Your task to perform on an android device: set an alarm Image 0: 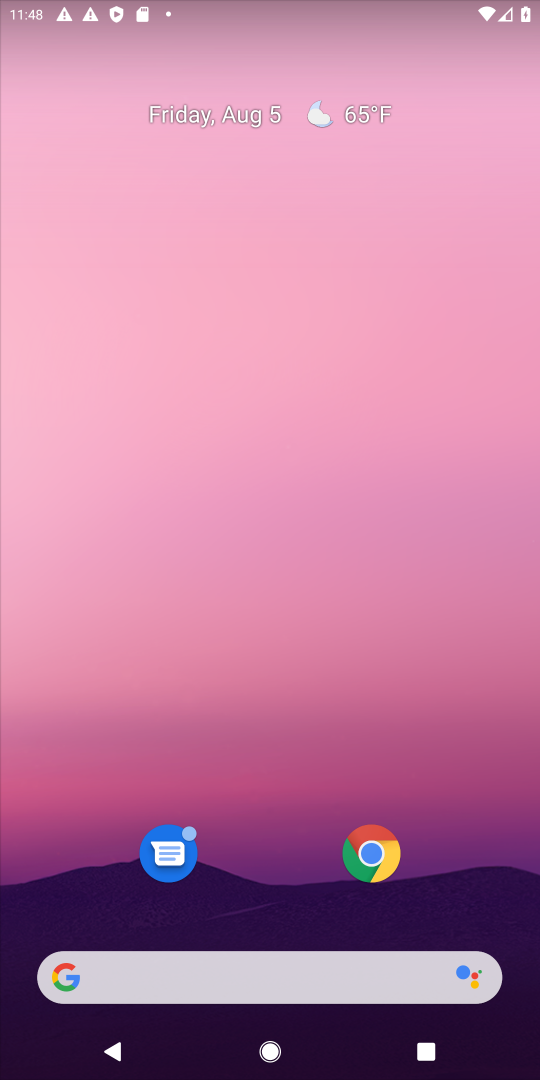
Step 0: drag from (267, 847) to (183, 185)
Your task to perform on an android device: set an alarm Image 1: 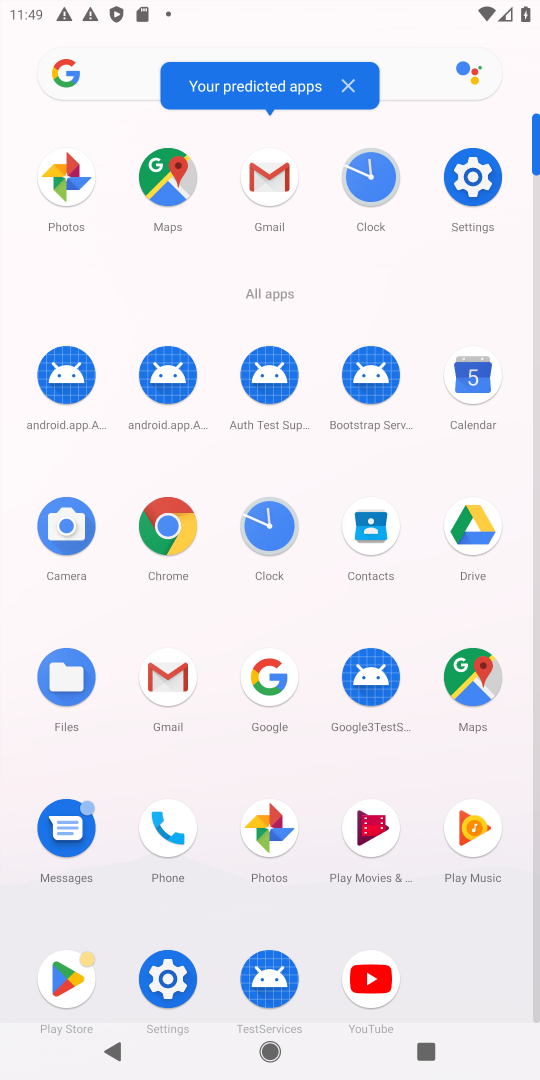
Step 1: click (257, 548)
Your task to perform on an android device: set an alarm Image 2: 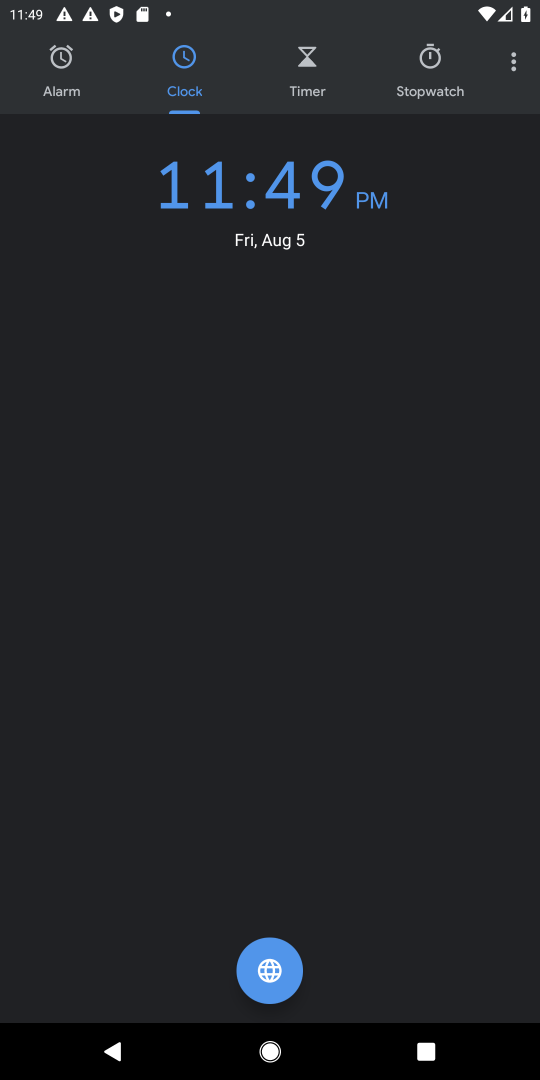
Step 2: click (67, 77)
Your task to perform on an android device: set an alarm Image 3: 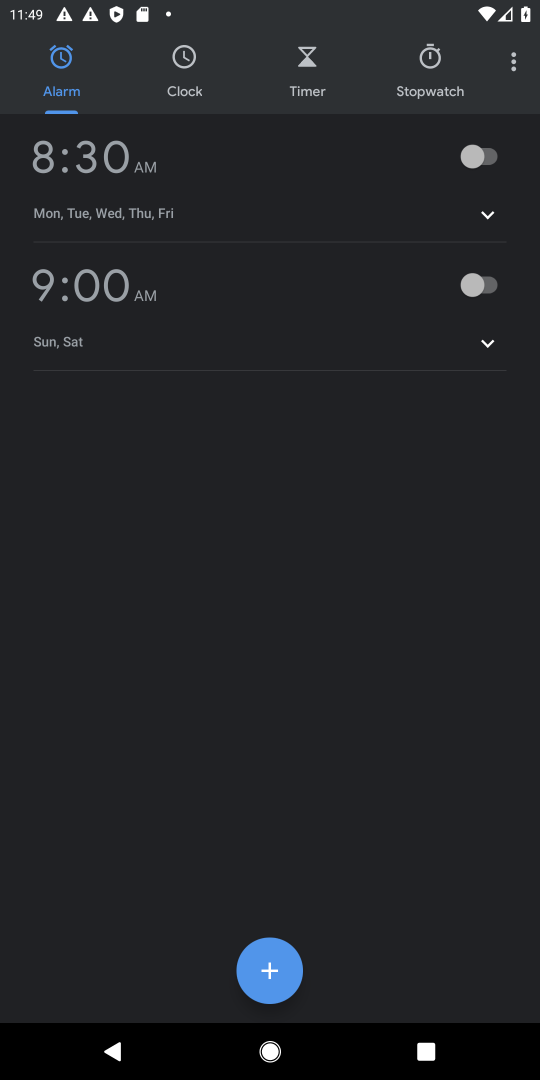
Step 3: click (265, 972)
Your task to perform on an android device: set an alarm Image 4: 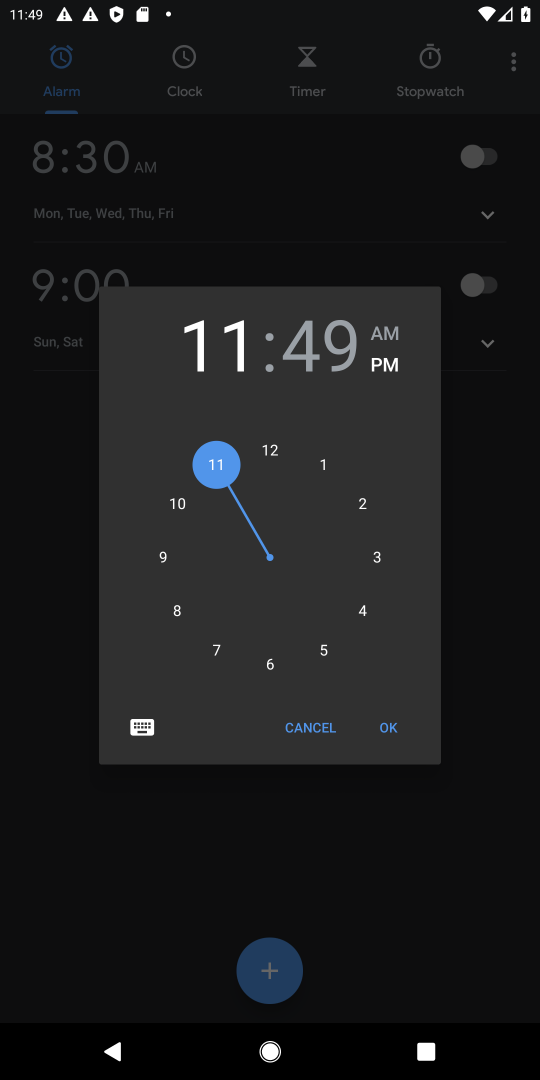
Step 4: click (247, 670)
Your task to perform on an android device: set an alarm Image 5: 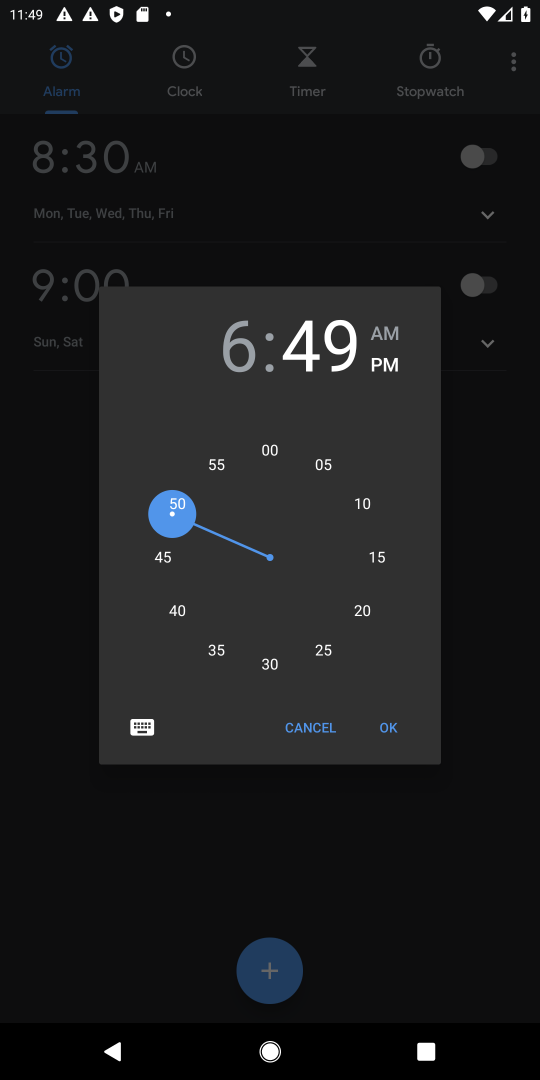
Step 5: click (412, 746)
Your task to perform on an android device: set an alarm Image 6: 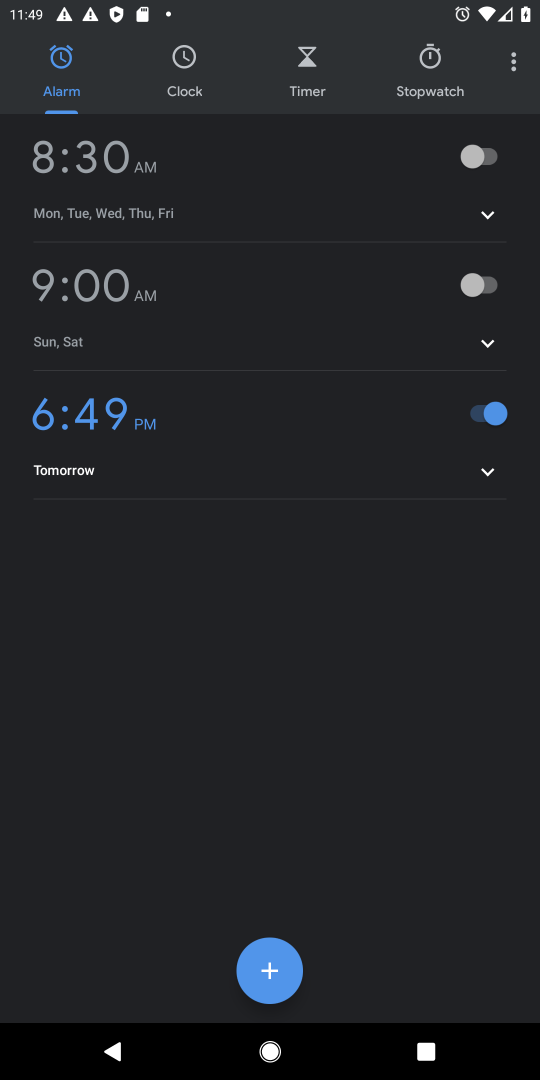
Step 6: task complete